Your task to perform on an android device: Open my contact list Image 0: 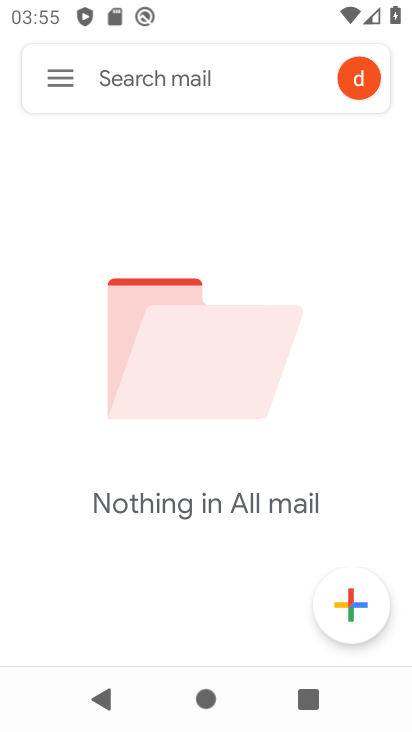
Step 0: press home button
Your task to perform on an android device: Open my contact list Image 1: 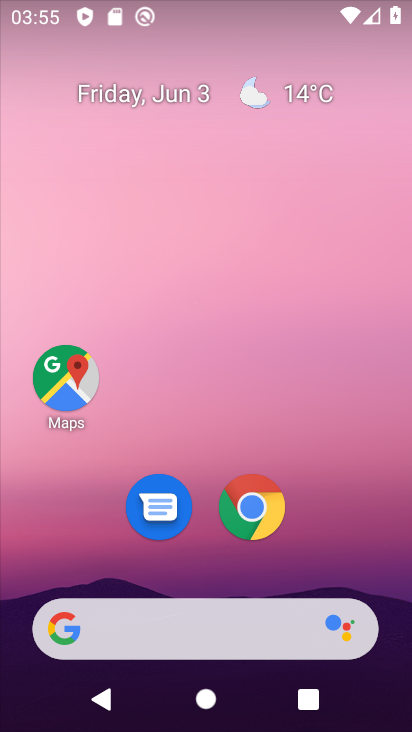
Step 1: drag from (184, 572) to (142, 0)
Your task to perform on an android device: Open my contact list Image 2: 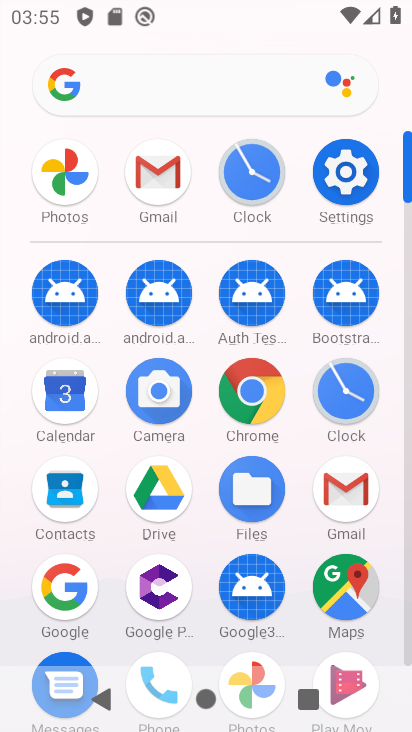
Step 2: click (60, 497)
Your task to perform on an android device: Open my contact list Image 3: 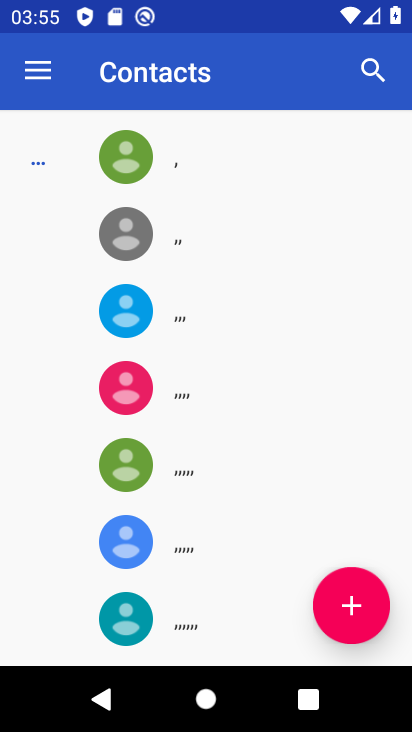
Step 3: task complete